Your task to perform on an android device: Search for "dell xps" on walmart.com, select the first entry, add it to the cart, then select checkout. Image 0: 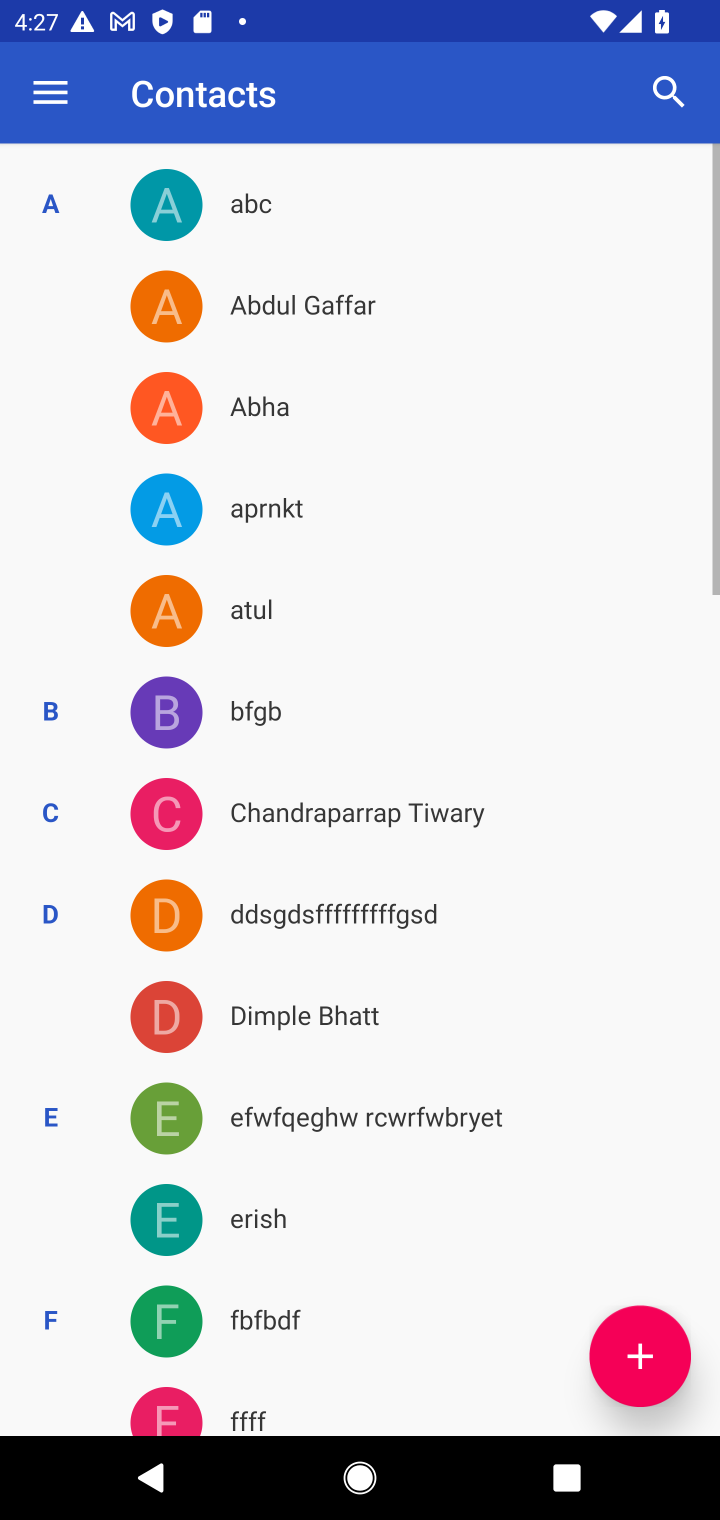
Step 0: press home button
Your task to perform on an android device: Search for "dell xps" on walmart.com, select the first entry, add it to the cart, then select checkout. Image 1: 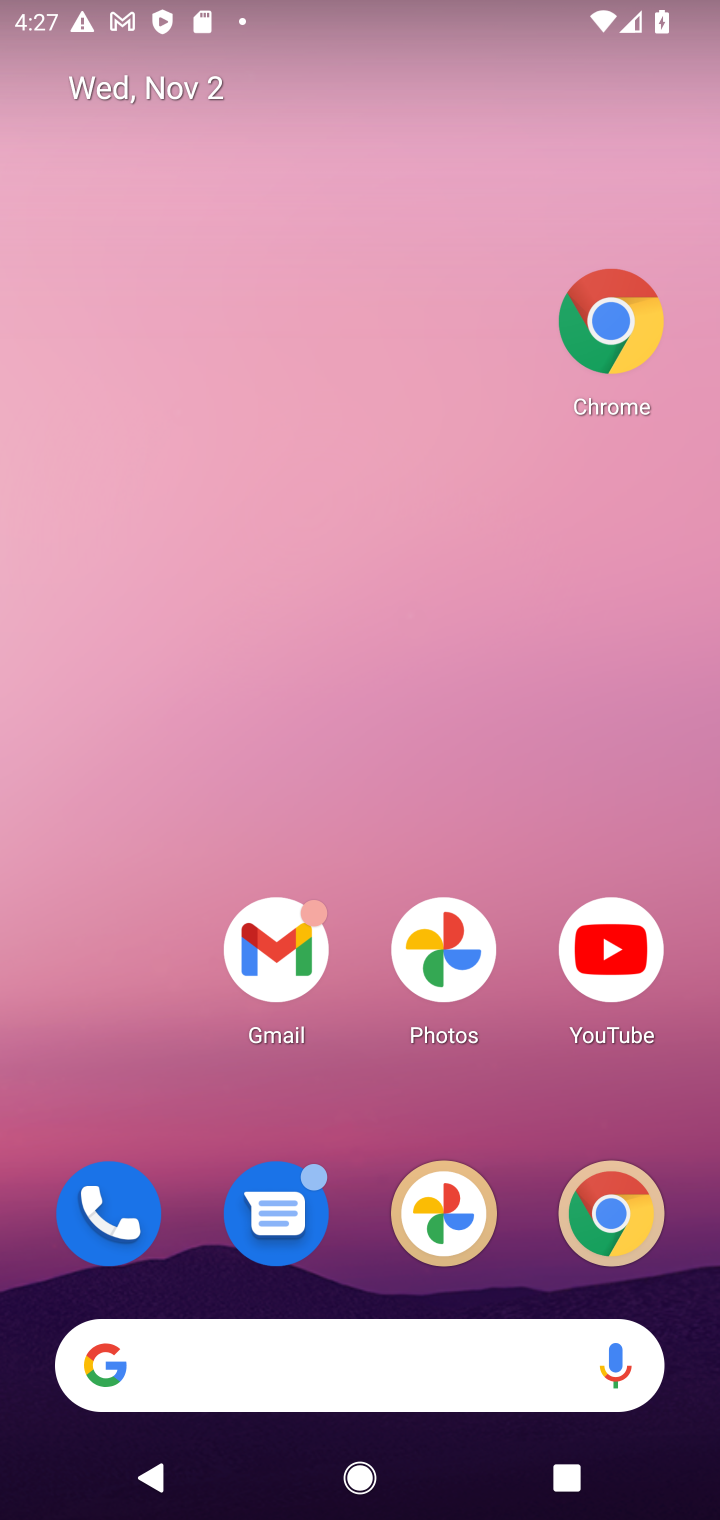
Step 1: drag from (369, 1203) to (427, 302)
Your task to perform on an android device: Search for "dell xps" on walmart.com, select the first entry, add it to the cart, then select checkout. Image 2: 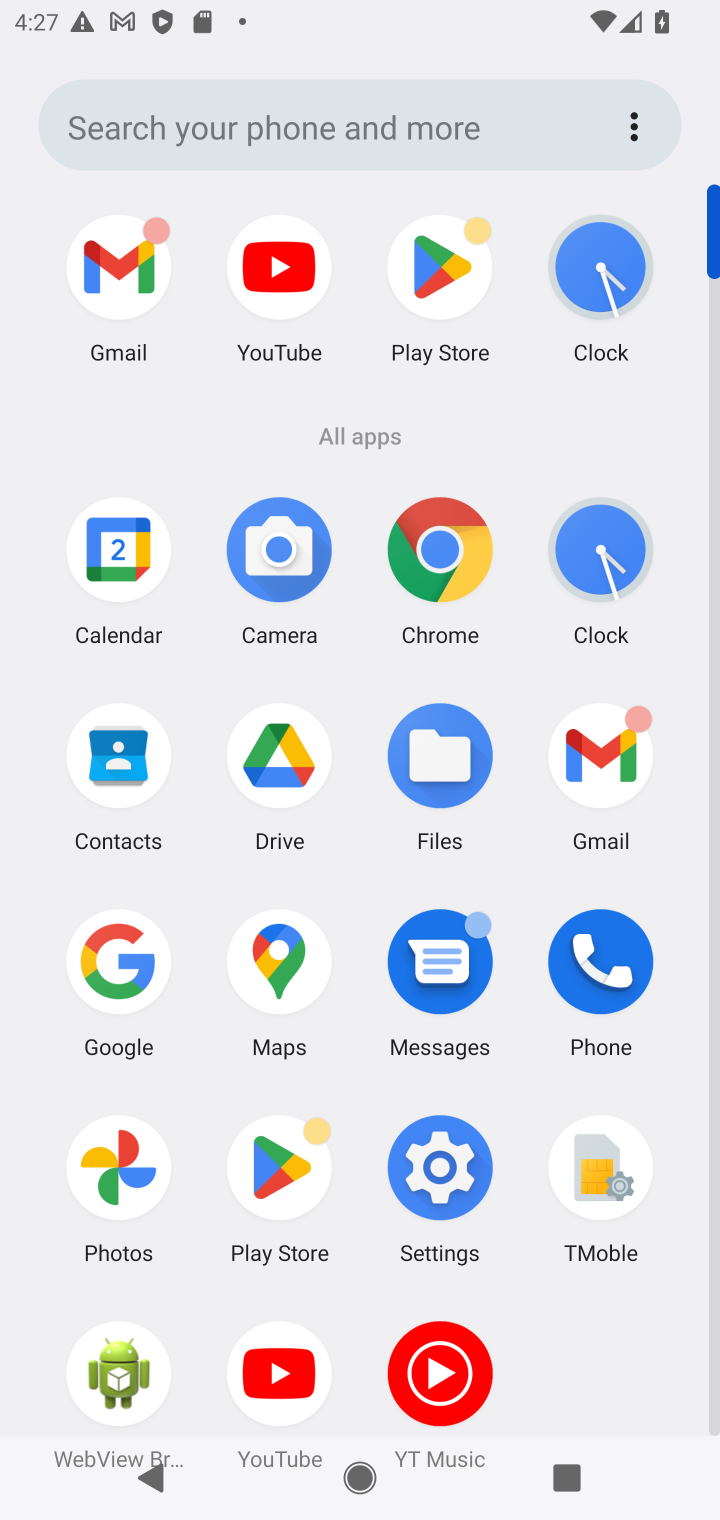
Step 2: click (142, 954)
Your task to perform on an android device: Search for "dell xps" on walmart.com, select the first entry, add it to the cart, then select checkout. Image 3: 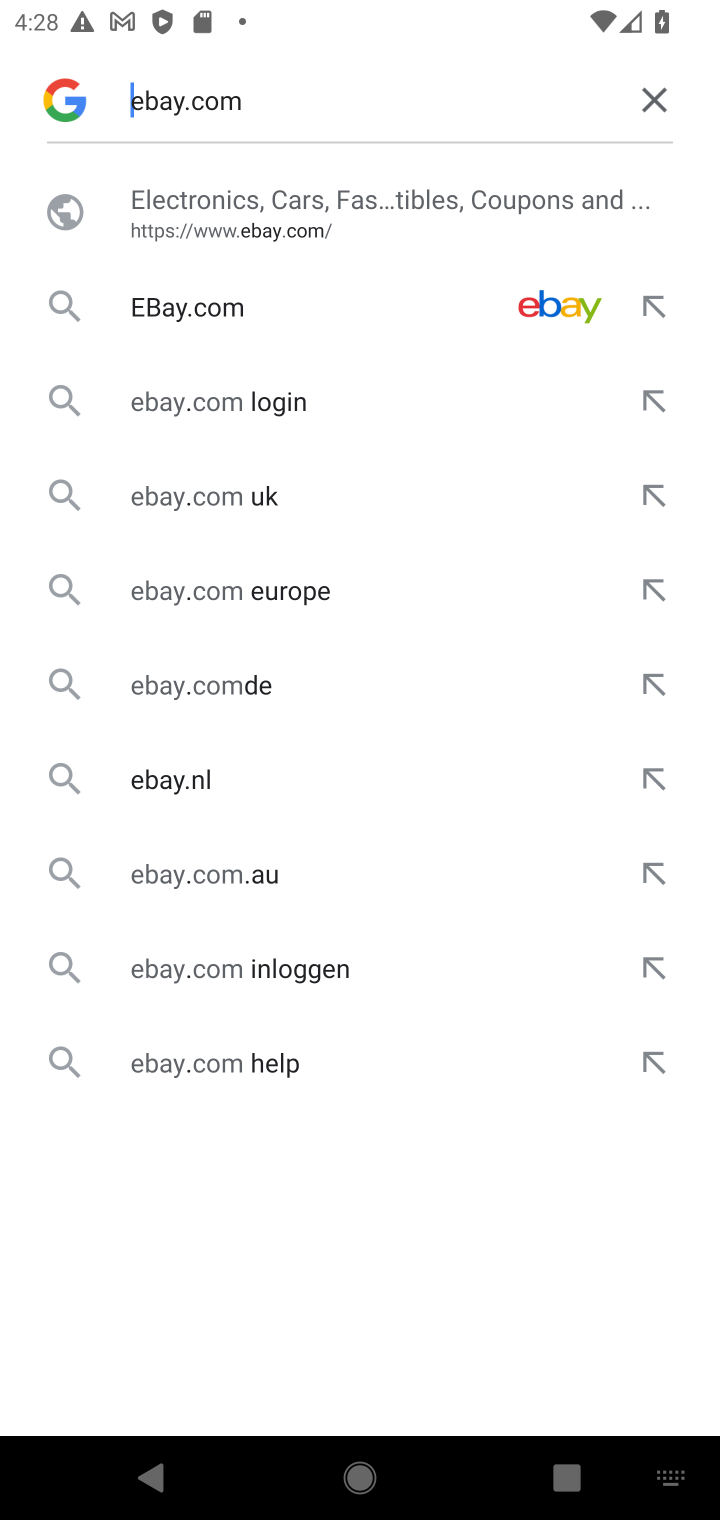
Step 3: click (648, 117)
Your task to perform on an android device: Search for "dell xps" on walmart.com, select the first entry, add it to the cart, then select checkout. Image 4: 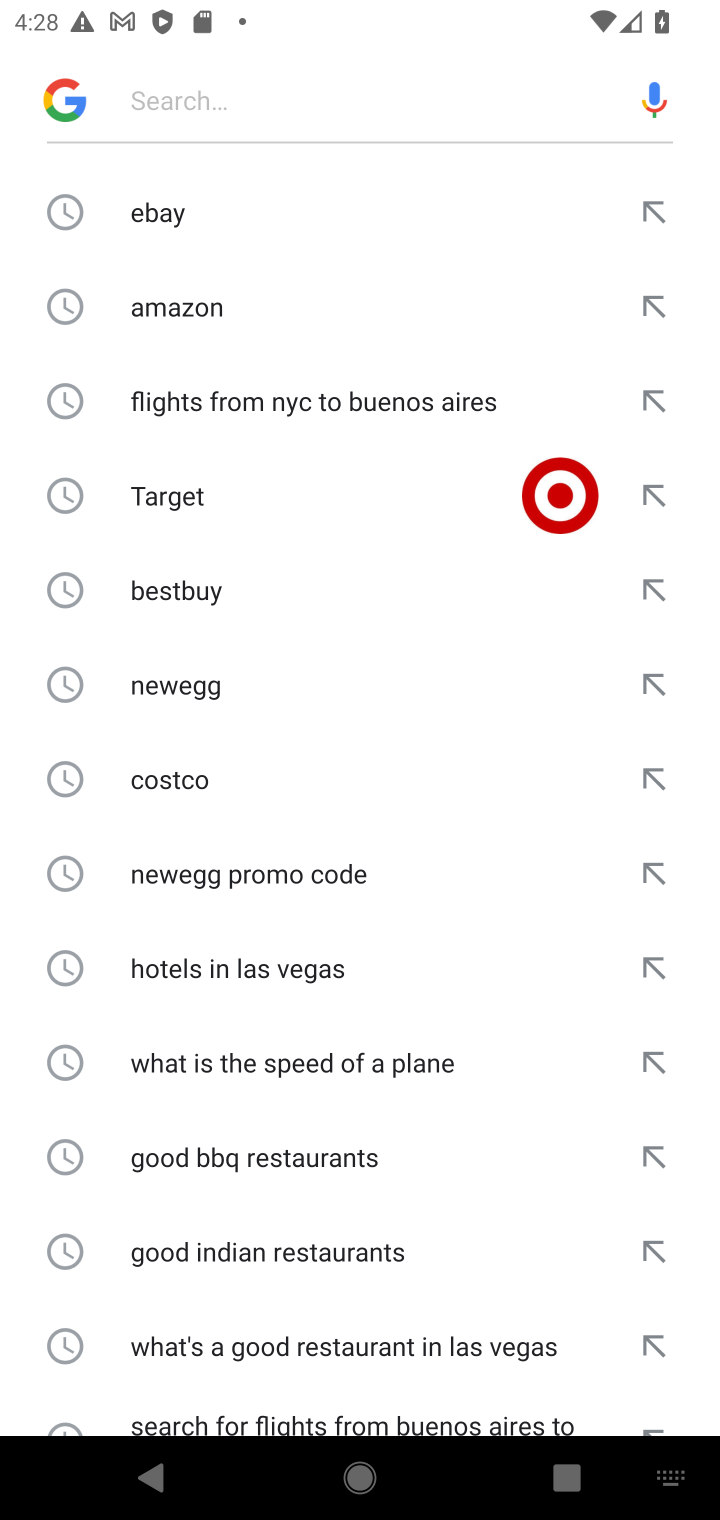
Step 4: type "walmart.com"
Your task to perform on an android device: Search for "dell xps" on walmart.com, select the first entry, add it to the cart, then select checkout. Image 5: 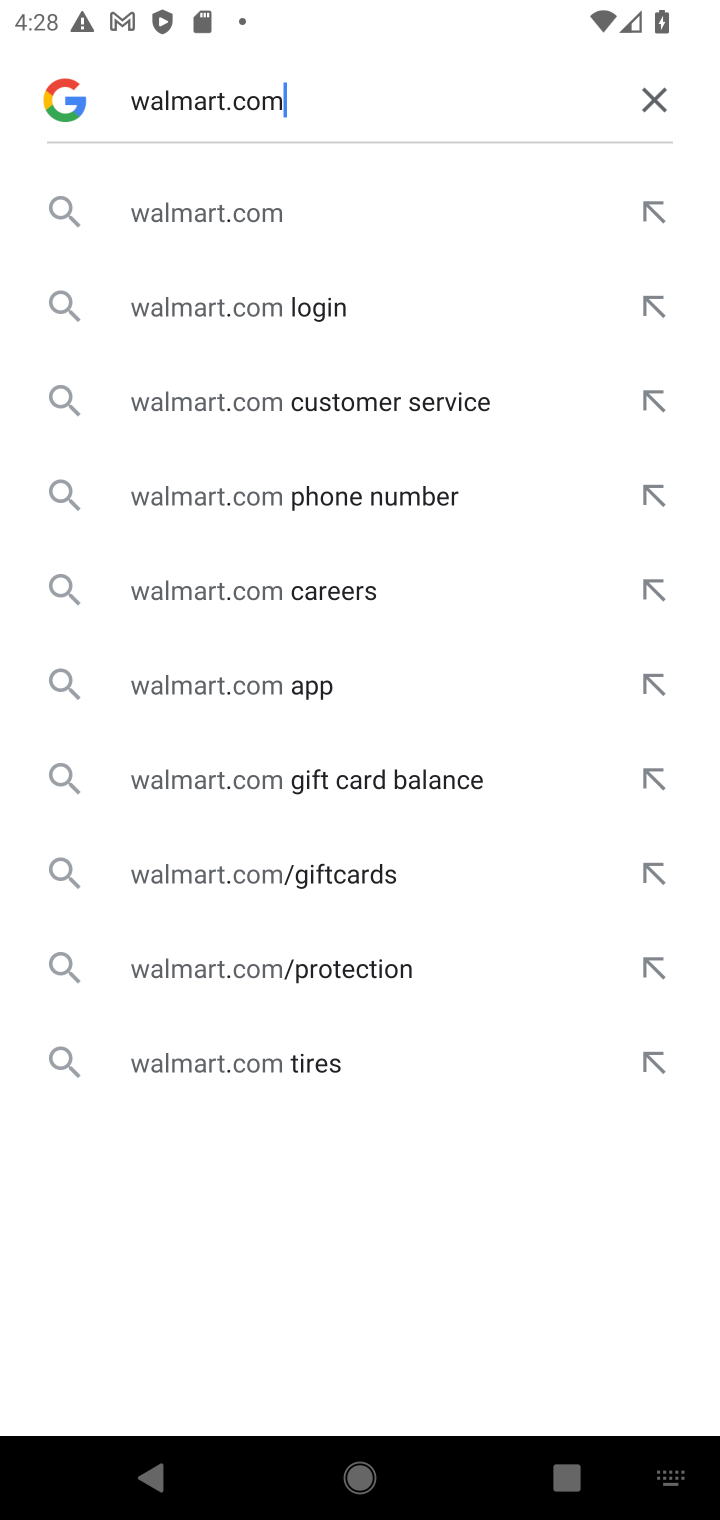
Step 5: click (279, 206)
Your task to perform on an android device: Search for "dell xps" on walmart.com, select the first entry, add it to the cart, then select checkout. Image 6: 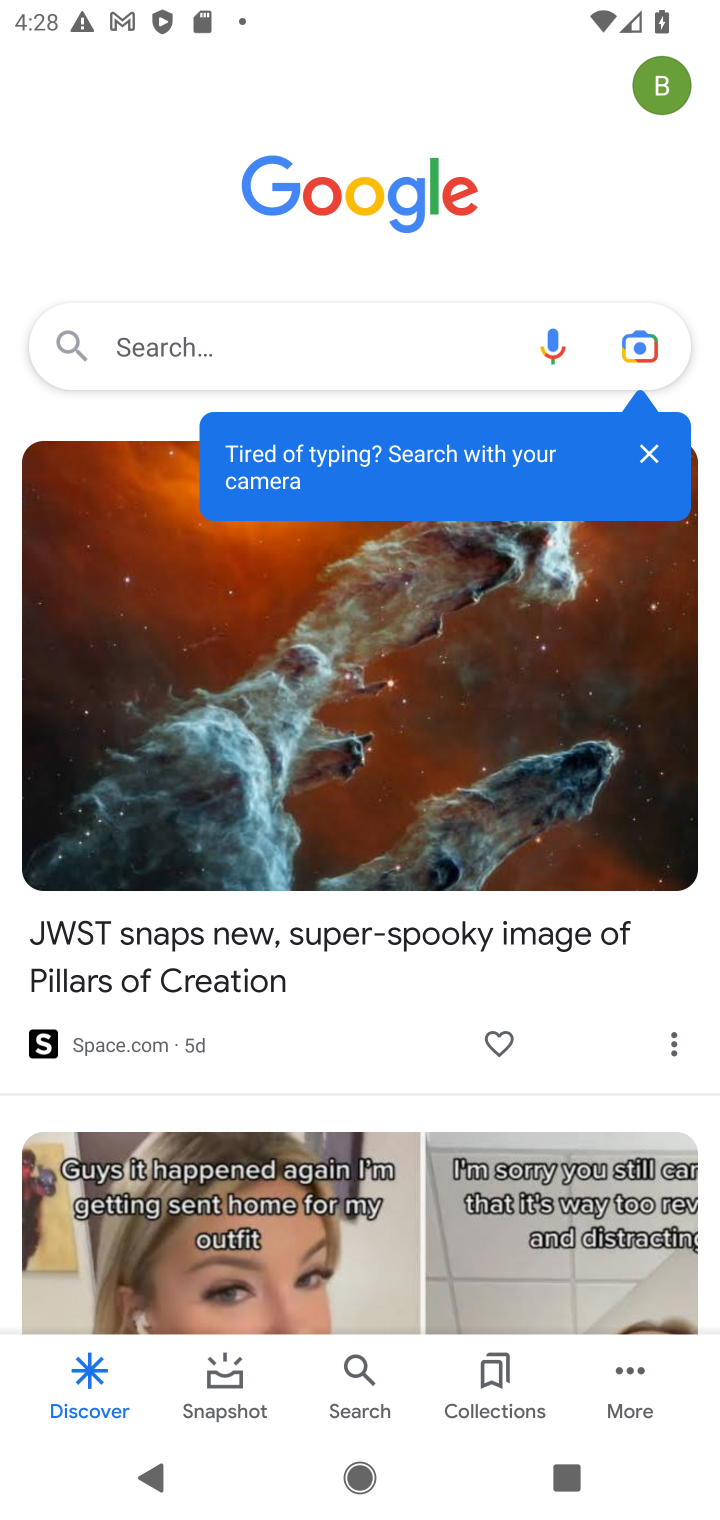
Step 6: click (243, 345)
Your task to perform on an android device: Search for "dell xps" on walmart.com, select the first entry, add it to the cart, then select checkout. Image 7: 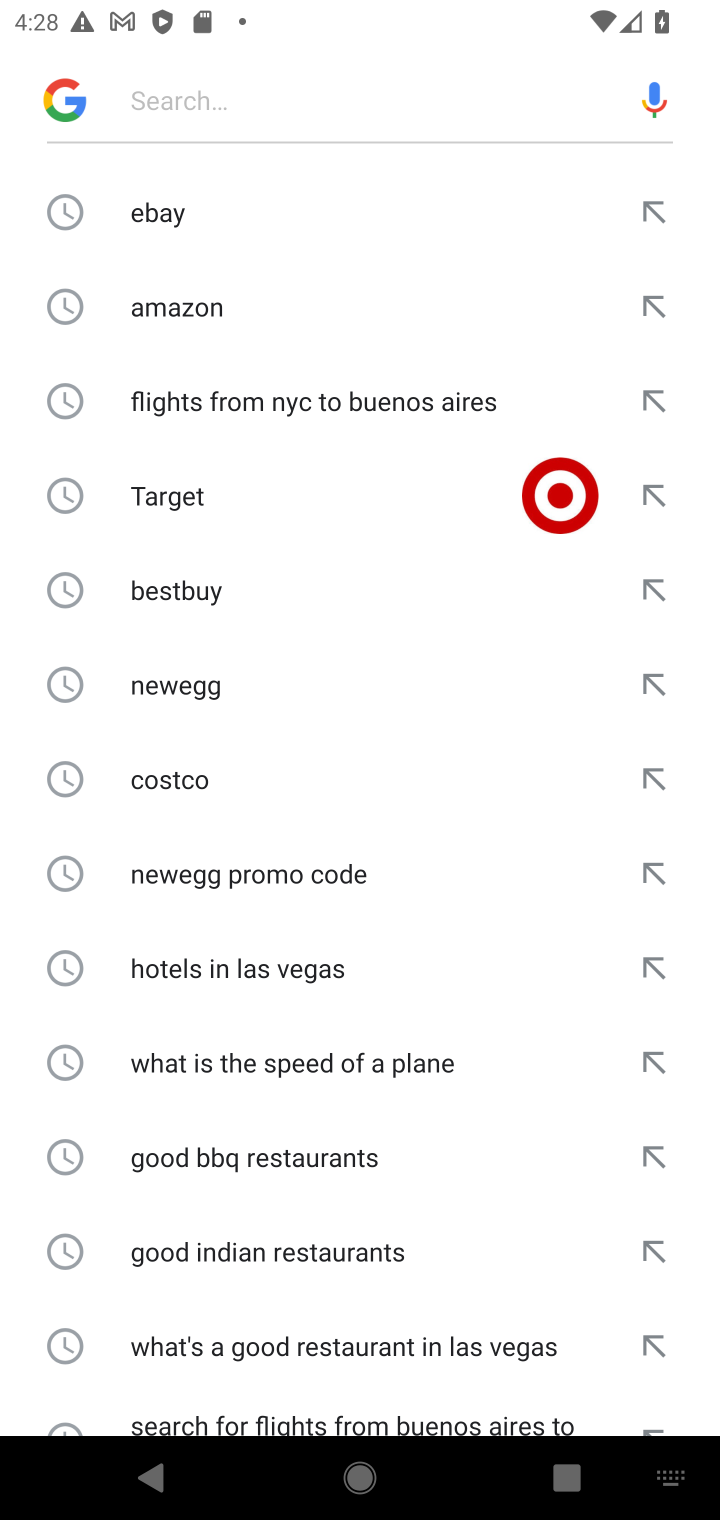
Step 7: type "walmart.com"
Your task to perform on an android device: Search for "dell xps" on walmart.com, select the first entry, add it to the cart, then select checkout. Image 8: 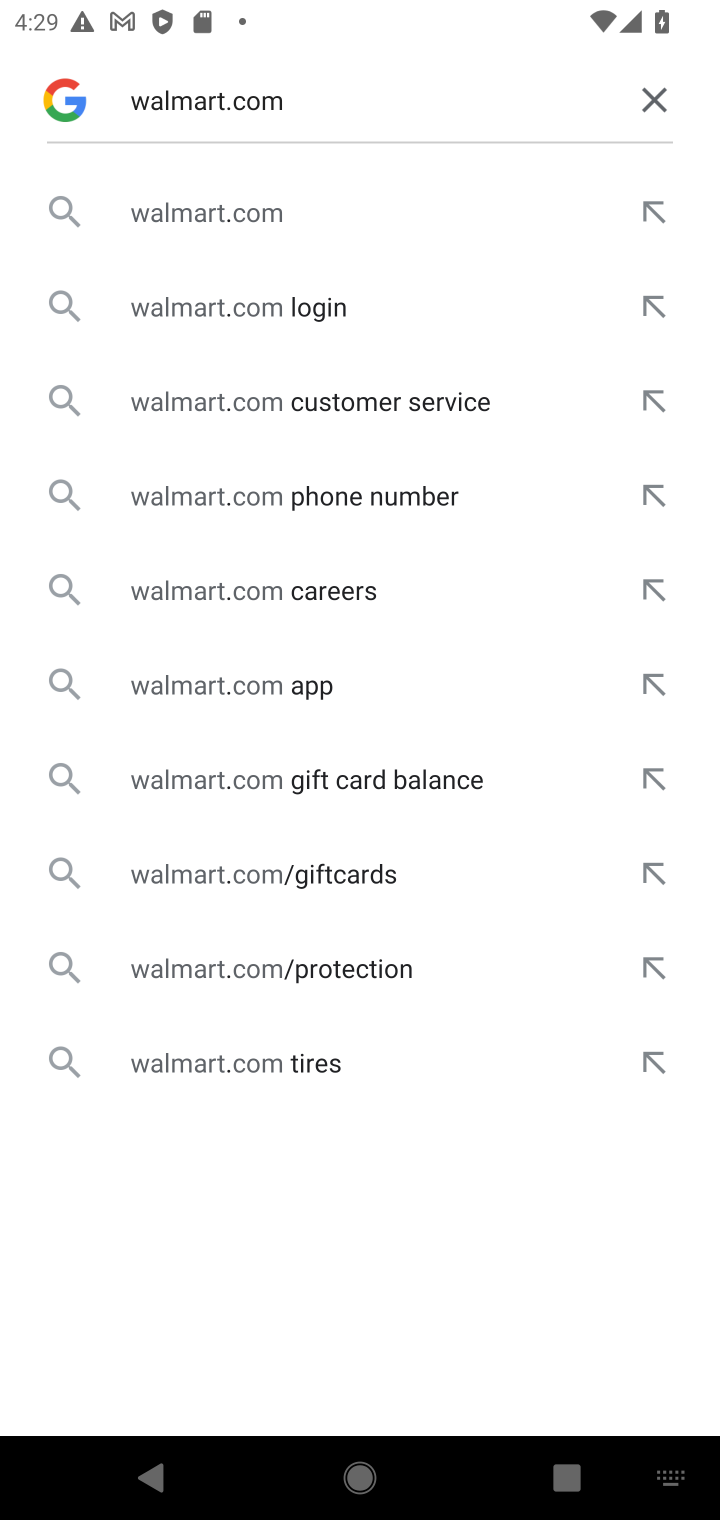
Step 8: click (319, 204)
Your task to perform on an android device: Search for "dell xps" on walmart.com, select the first entry, add it to the cart, then select checkout. Image 9: 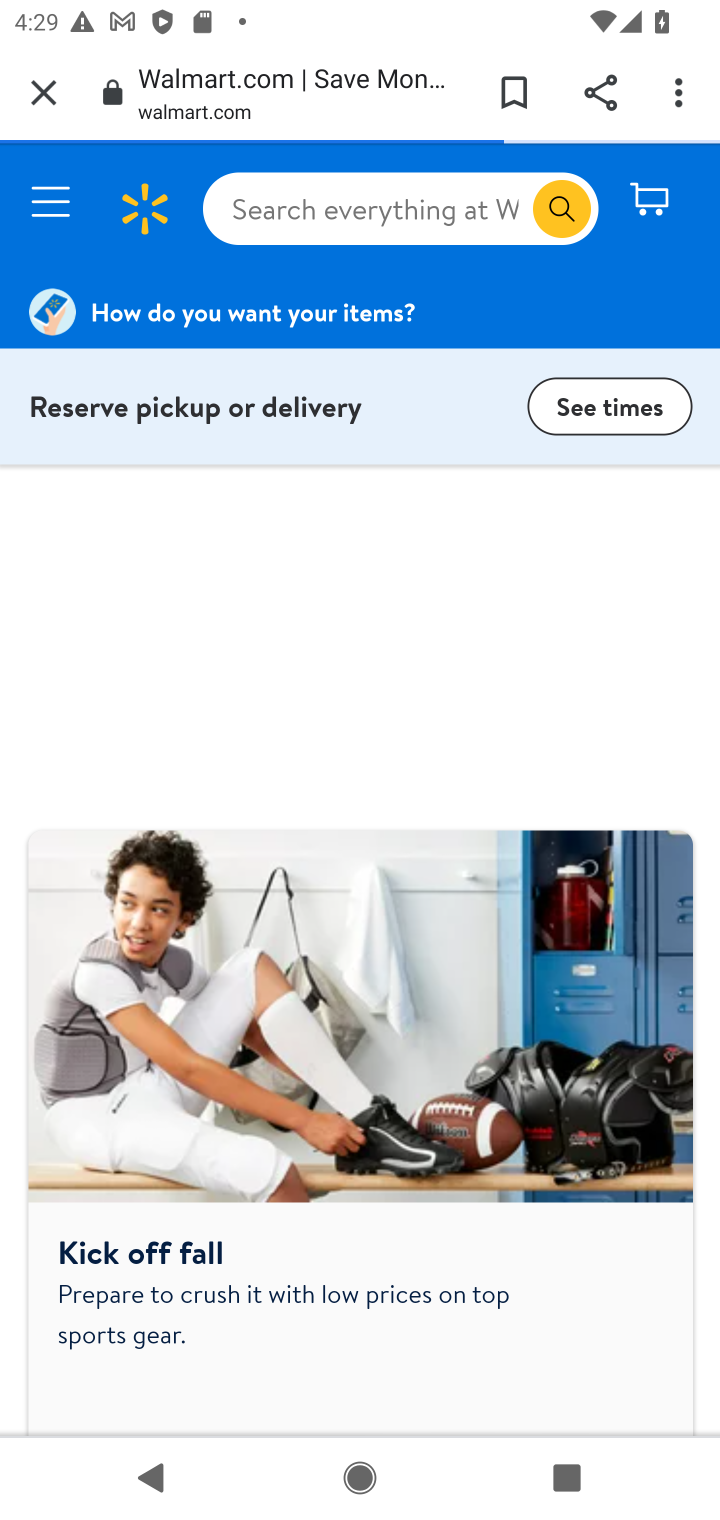
Step 9: click (357, 217)
Your task to perform on an android device: Search for "dell xps" on walmart.com, select the first entry, add it to the cart, then select checkout. Image 10: 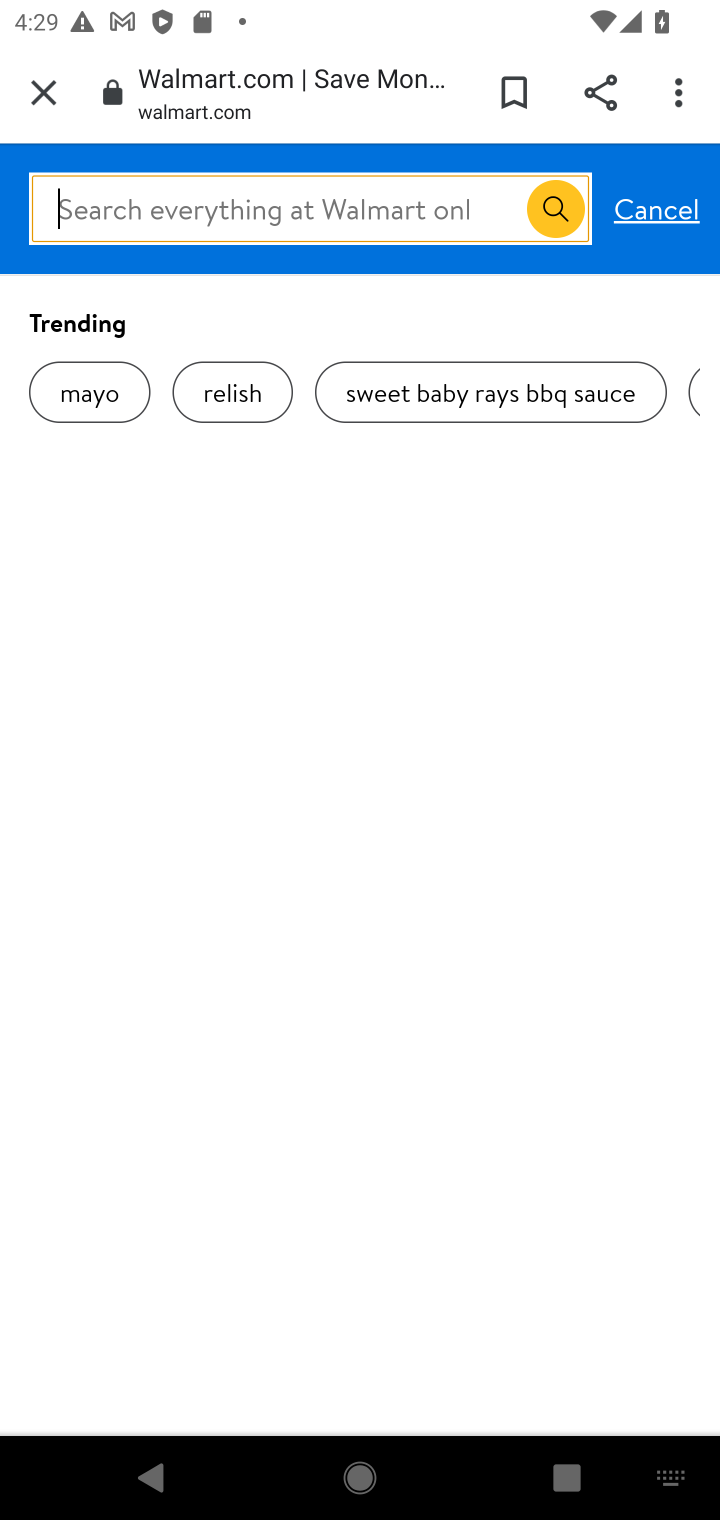
Step 10: type "dell xps"
Your task to perform on an android device: Search for "dell xps" on walmart.com, select the first entry, add it to the cart, then select checkout. Image 11: 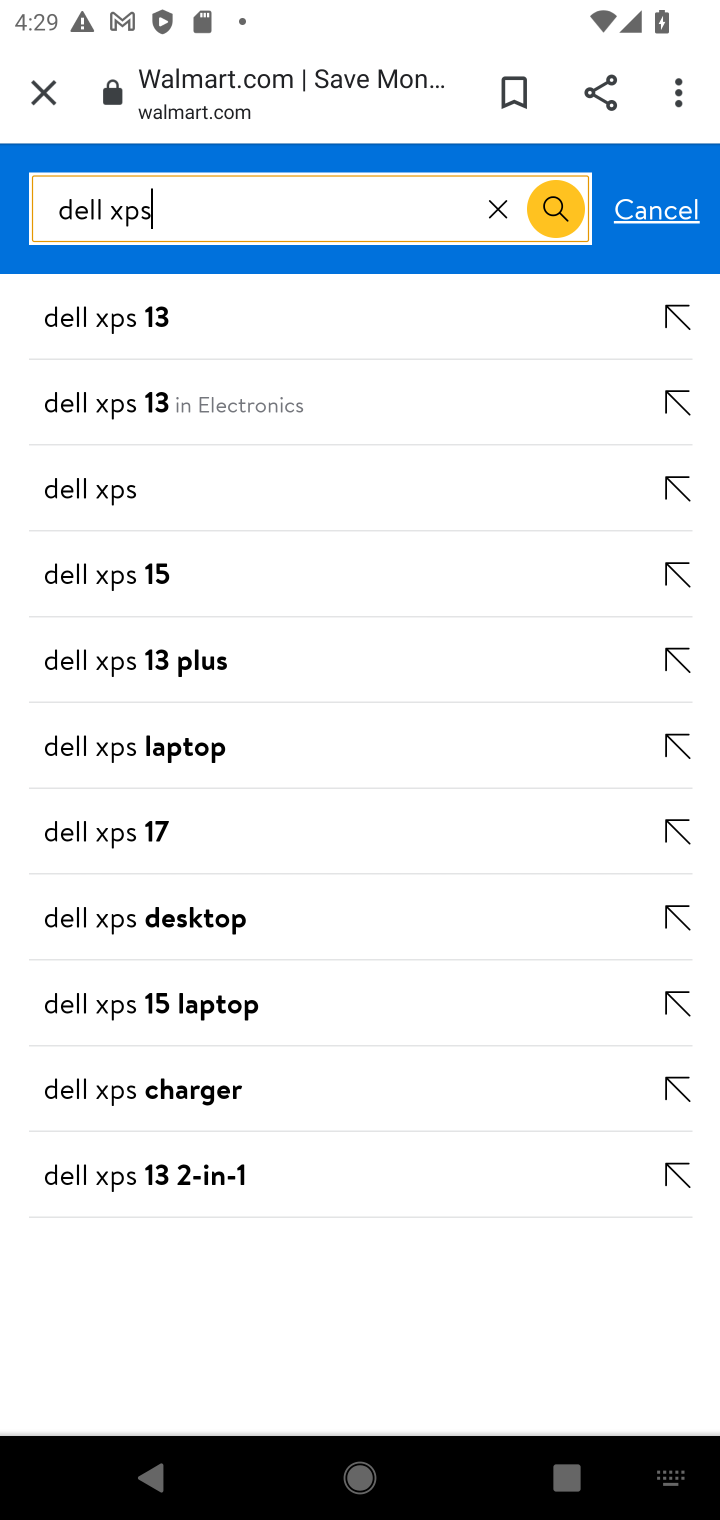
Step 11: click (225, 483)
Your task to perform on an android device: Search for "dell xps" on walmart.com, select the first entry, add it to the cart, then select checkout. Image 12: 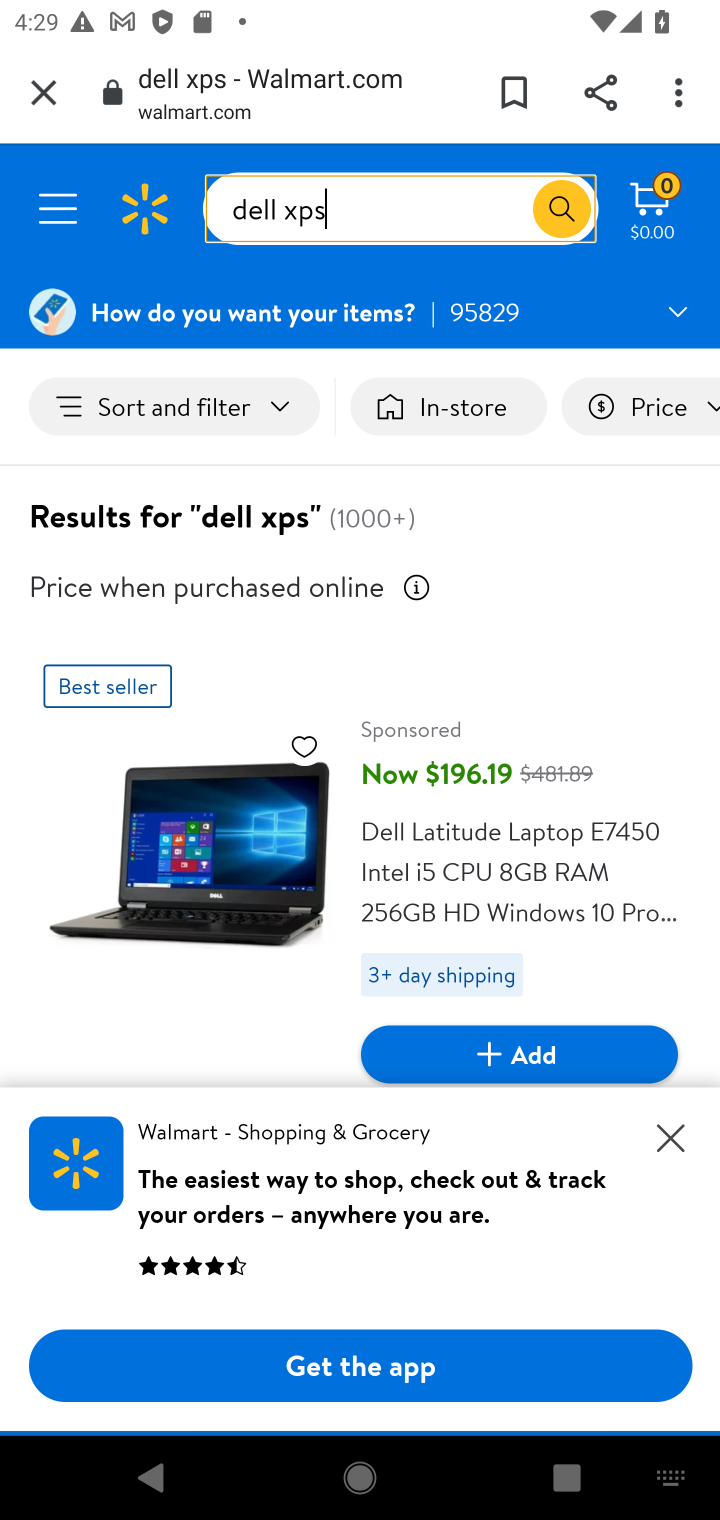
Step 12: click (588, 1066)
Your task to perform on an android device: Search for "dell xps" on walmart.com, select the first entry, add it to the cart, then select checkout. Image 13: 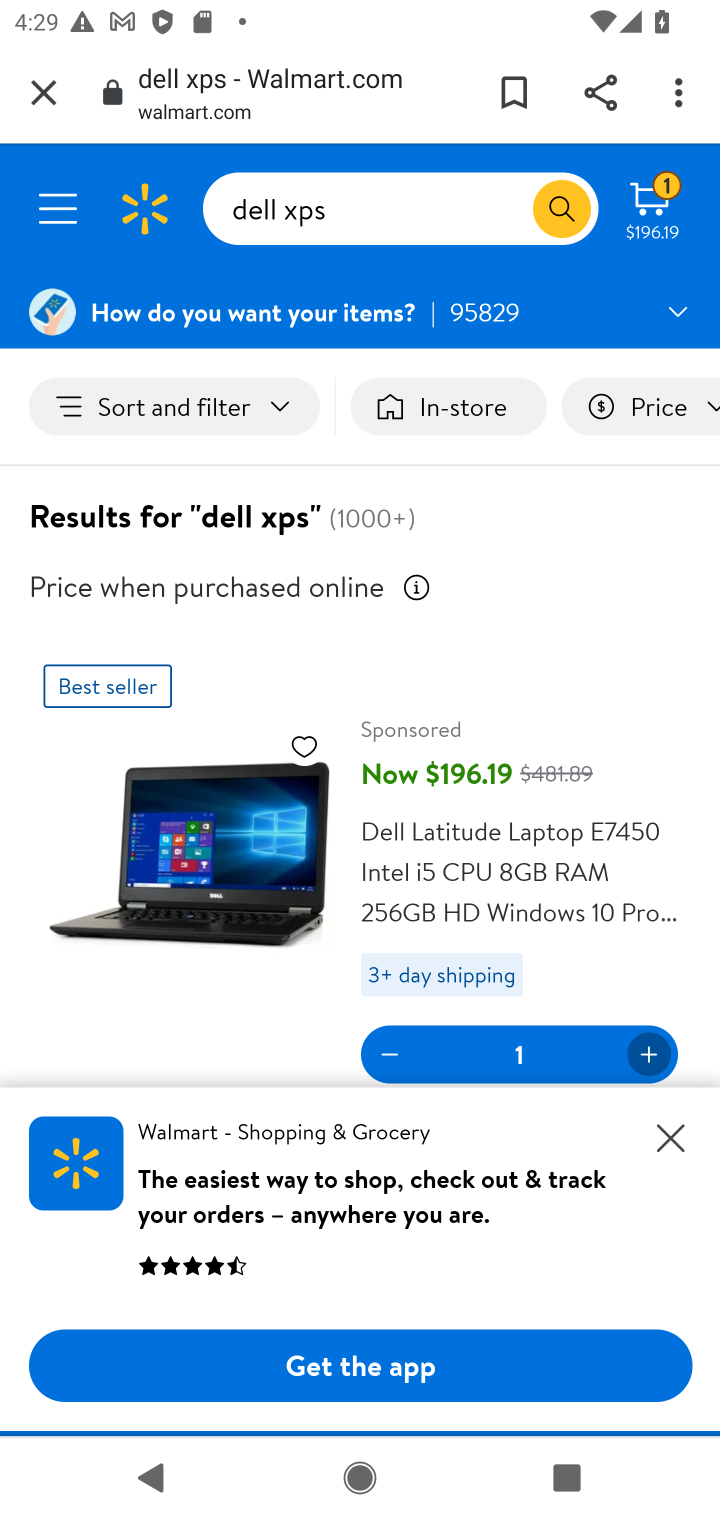
Step 13: click (681, 1136)
Your task to perform on an android device: Search for "dell xps" on walmart.com, select the first entry, add it to the cart, then select checkout. Image 14: 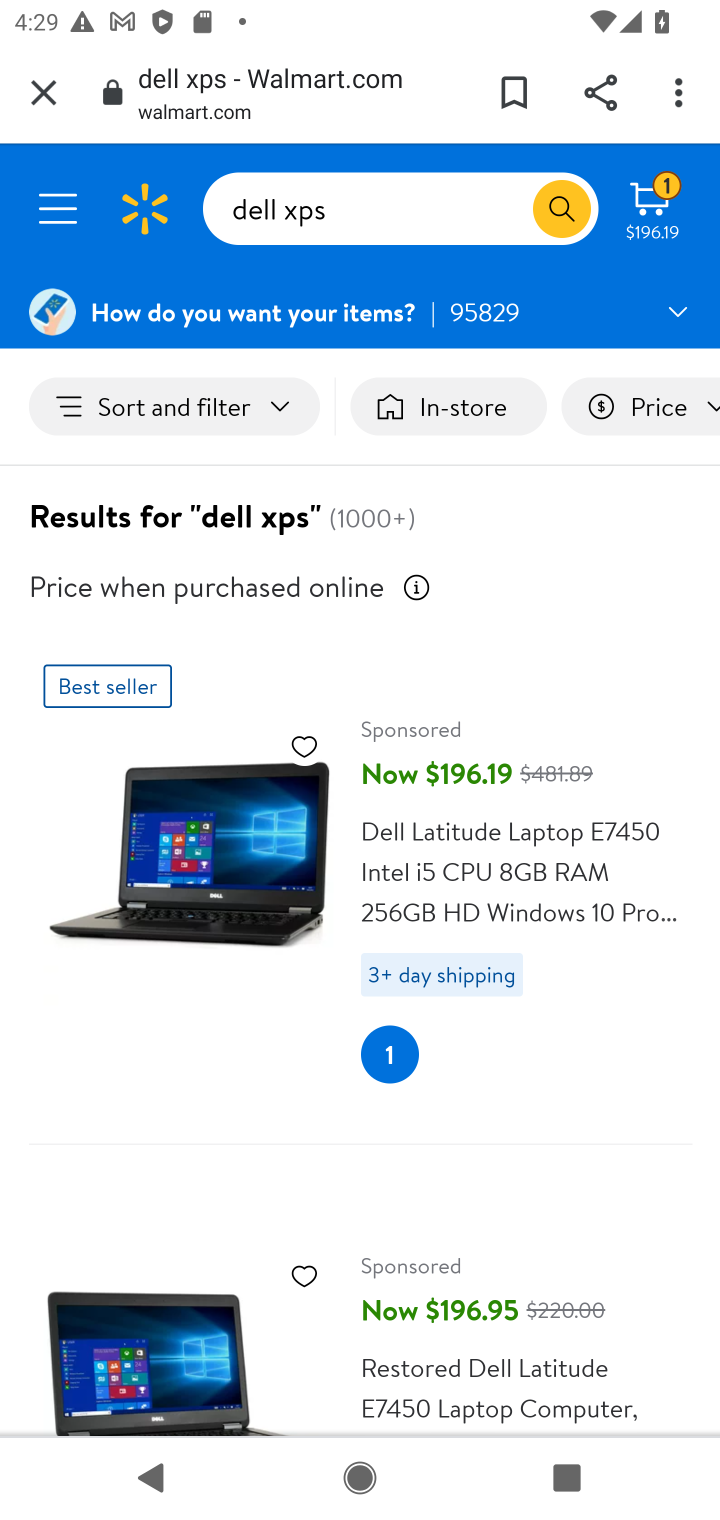
Step 14: click (650, 205)
Your task to perform on an android device: Search for "dell xps" on walmart.com, select the first entry, add it to the cart, then select checkout. Image 15: 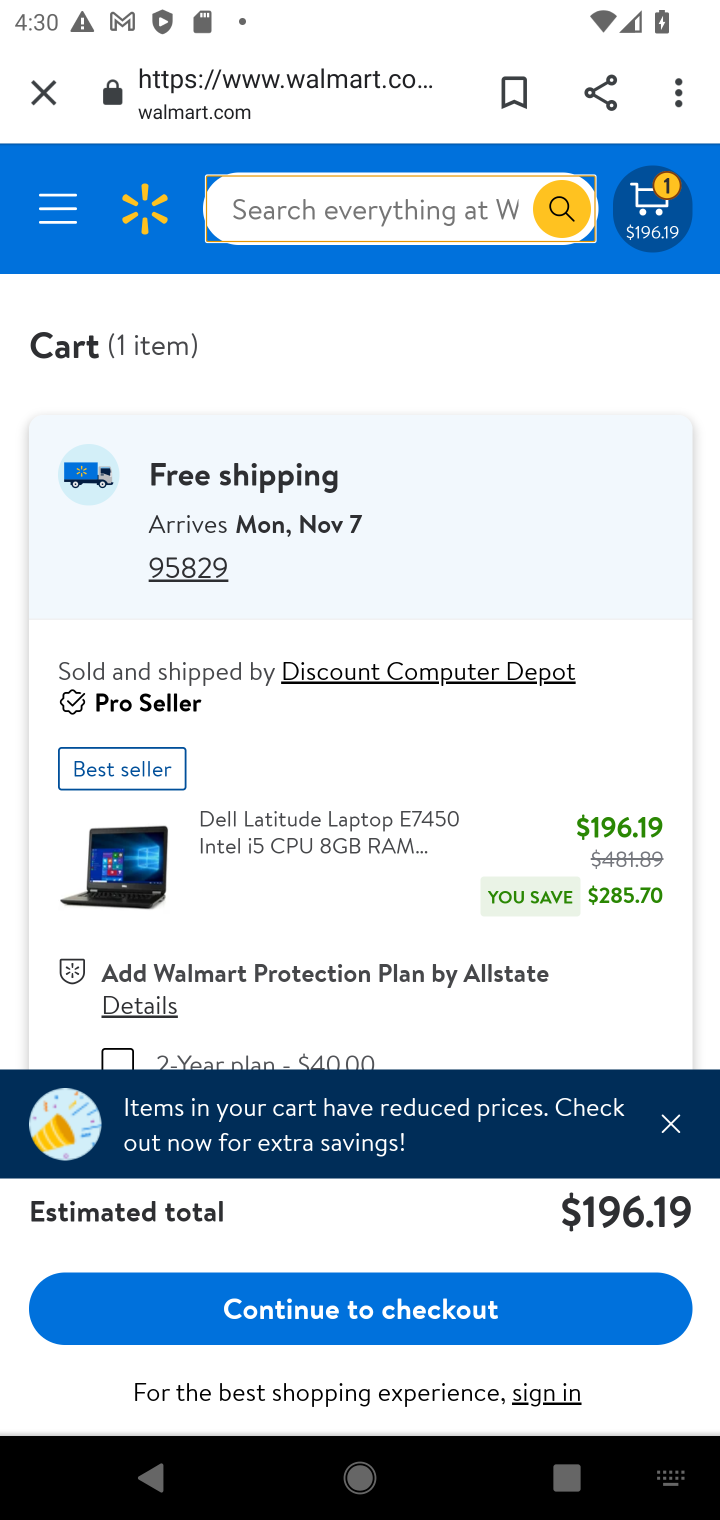
Step 15: click (409, 1316)
Your task to perform on an android device: Search for "dell xps" on walmart.com, select the first entry, add it to the cart, then select checkout. Image 16: 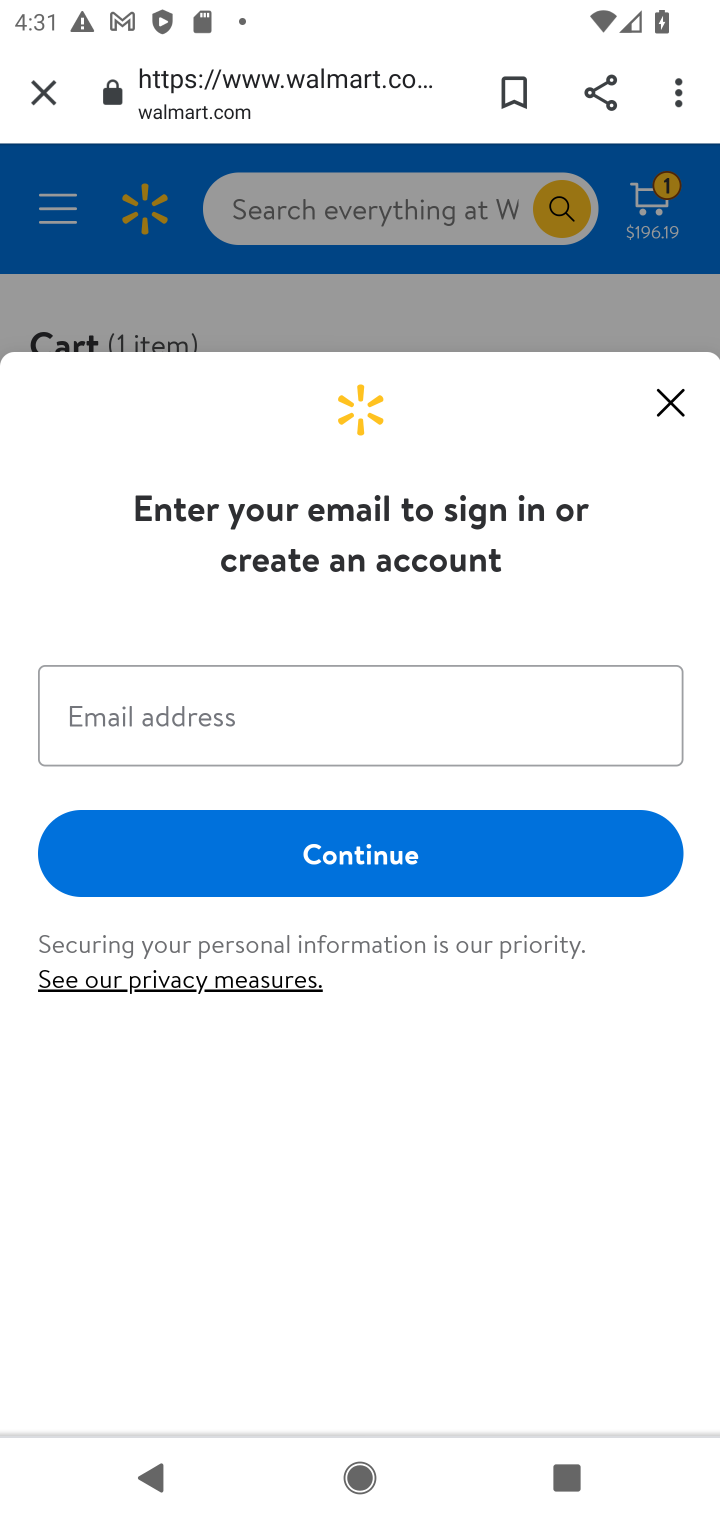
Step 16: click (663, 405)
Your task to perform on an android device: Search for "dell xps" on walmart.com, select the first entry, add it to the cart, then select checkout. Image 17: 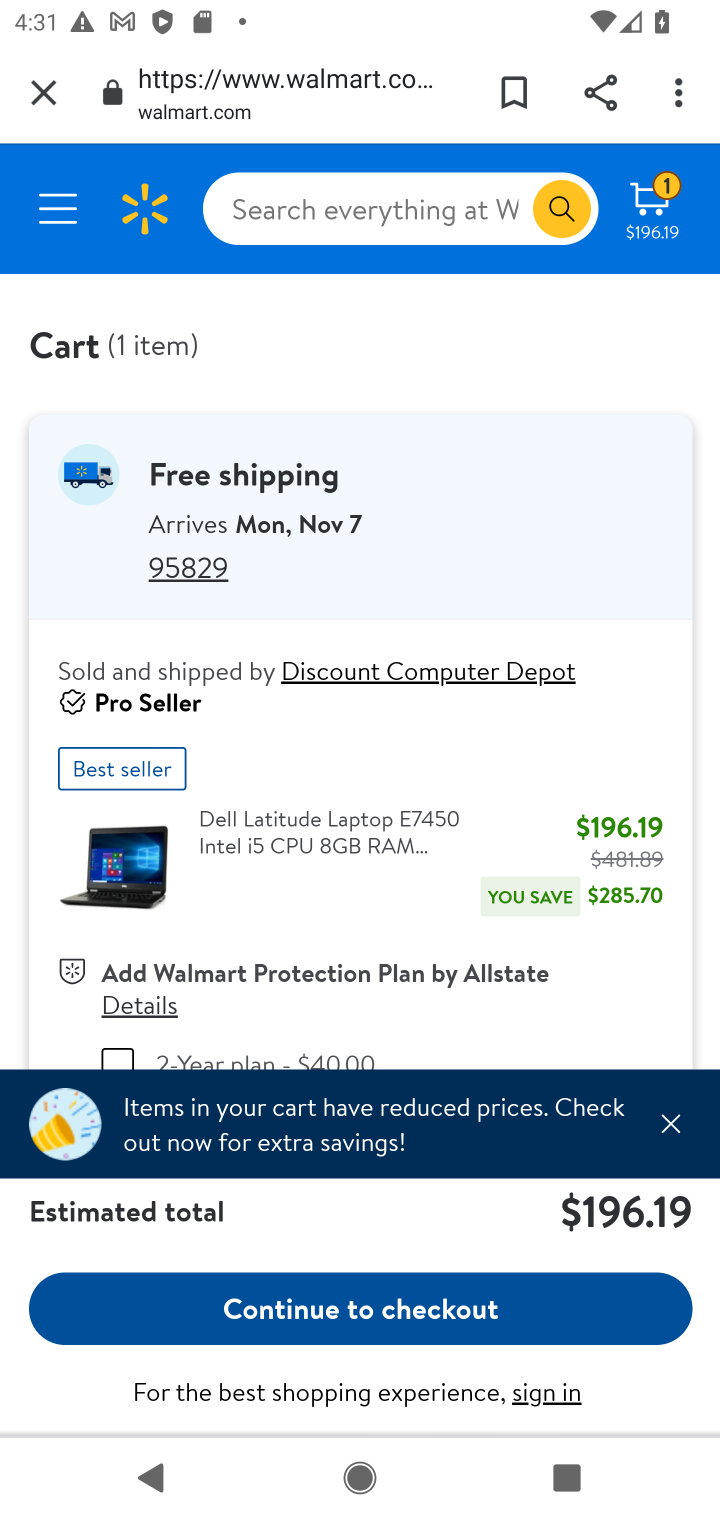
Step 17: task complete